Your task to perform on an android device: open a new tab in the chrome app Image 0: 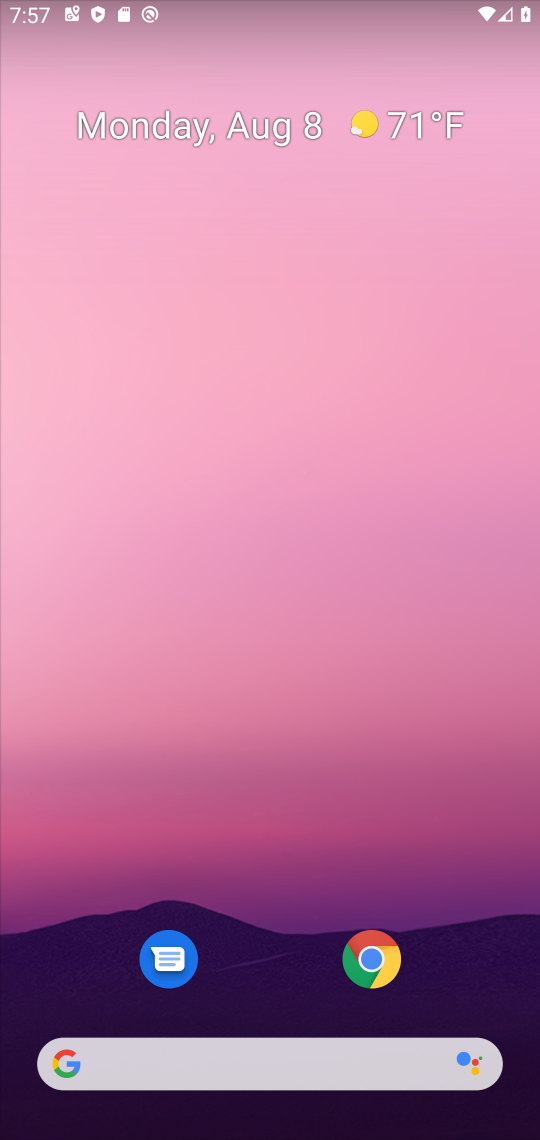
Step 0: drag from (458, 956) to (284, 133)
Your task to perform on an android device: open a new tab in the chrome app Image 1: 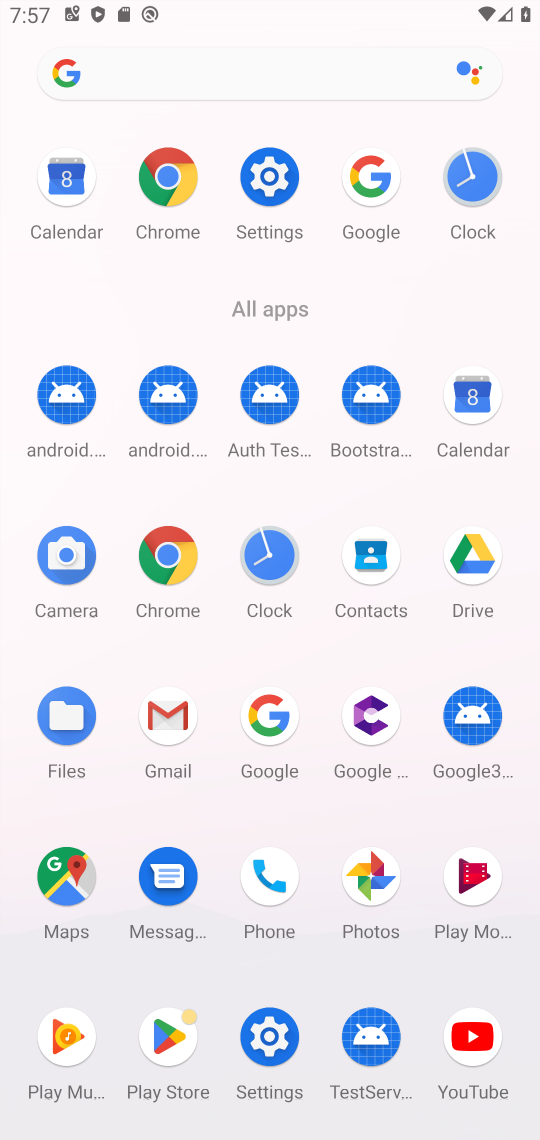
Step 1: click (172, 200)
Your task to perform on an android device: open a new tab in the chrome app Image 2: 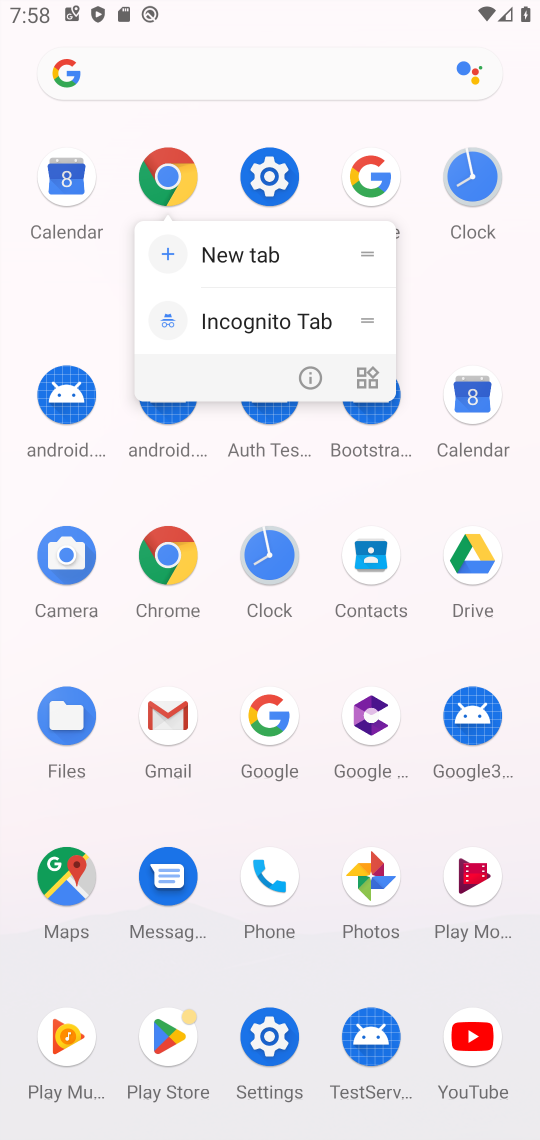
Step 2: click (172, 194)
Your task to perform on an android device: open a new tab in the chrome app Image 3: 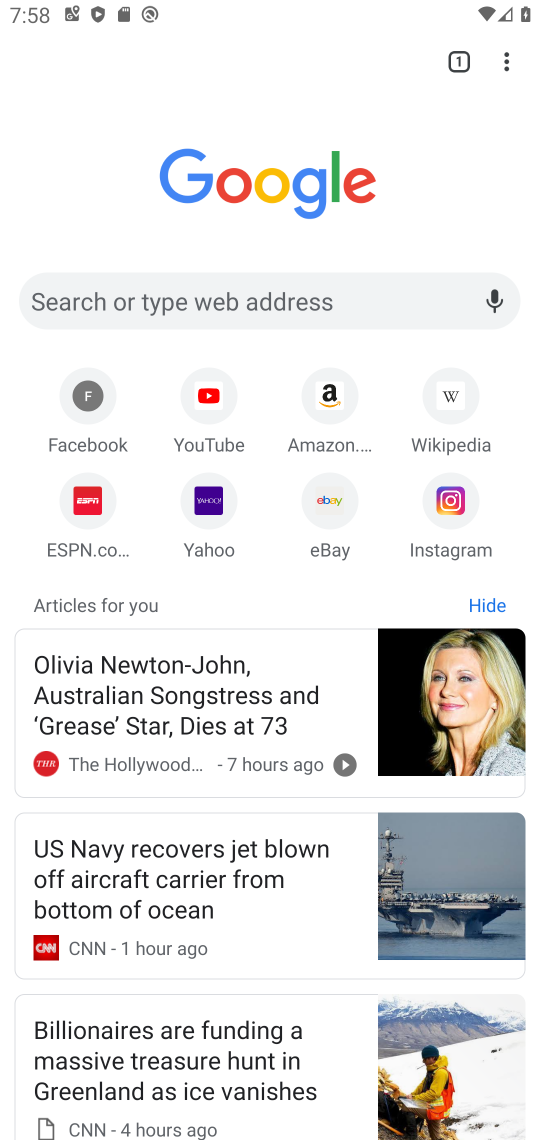
Step 3: click (509, 57)
Your task to perform on an android device: open a new tab in the chrome app Image 4: 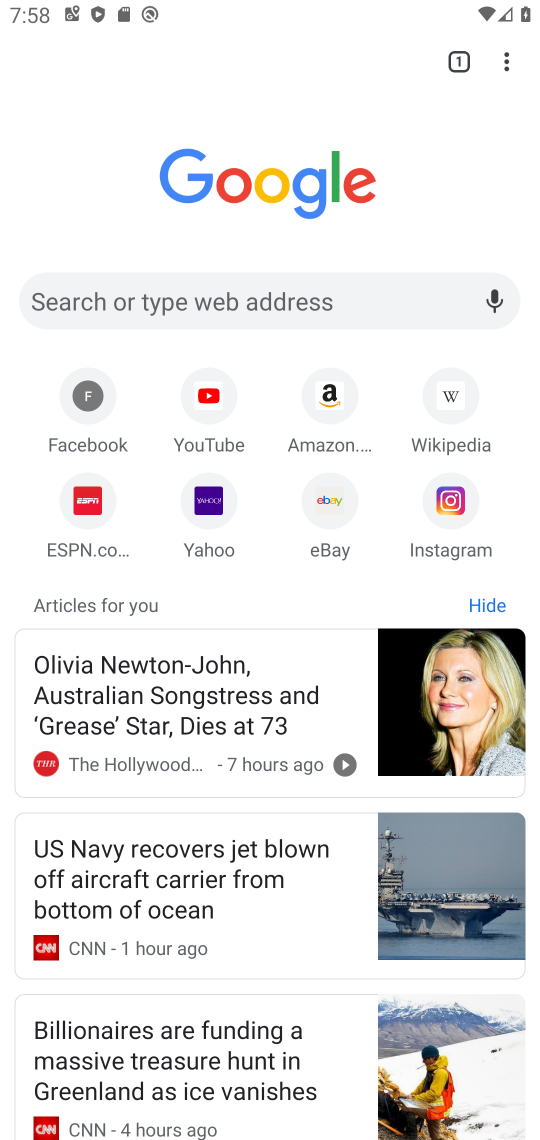
Step 4: click (505, 59)
Your task to perform on an android device: open a new tab in the chrome app Image 5: 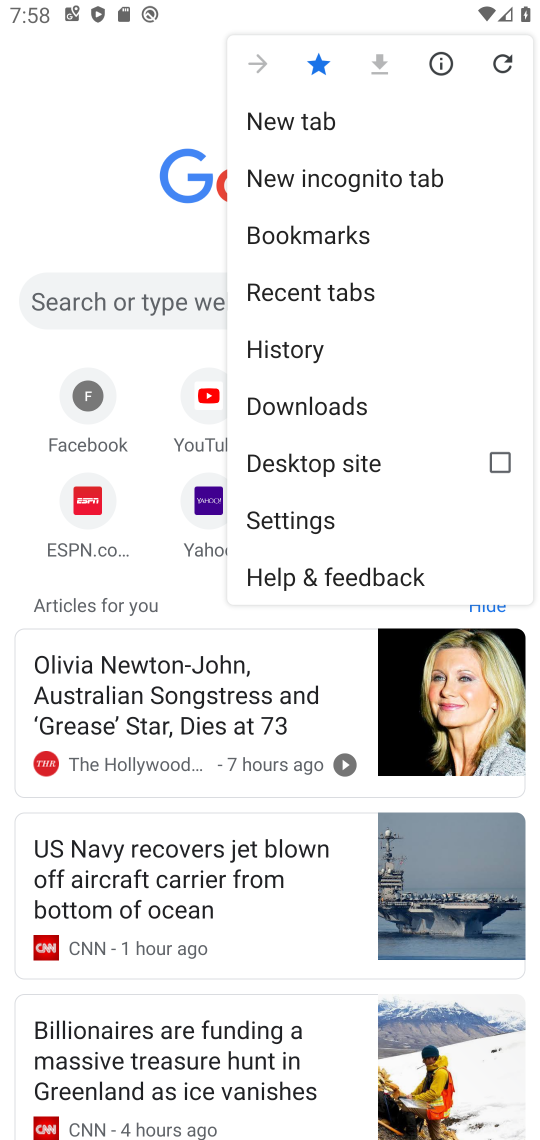
Step 5: click (307, 129)
Your task to perform on an android device: open a new tab in the chrome app Image 6: 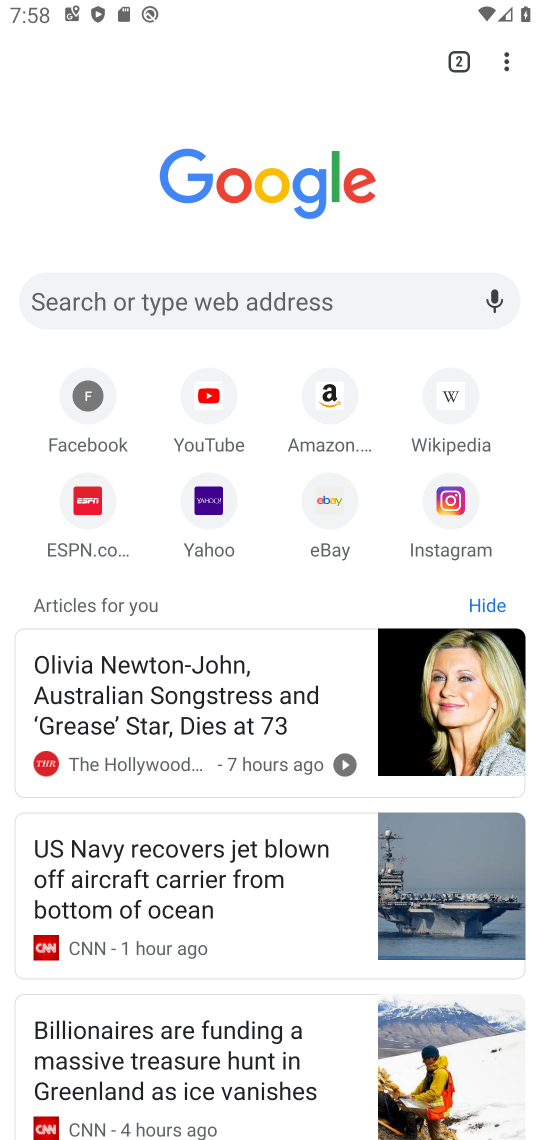
Step 6: task complete